Your task to perform on an android device: turn notification dots on Image 0: 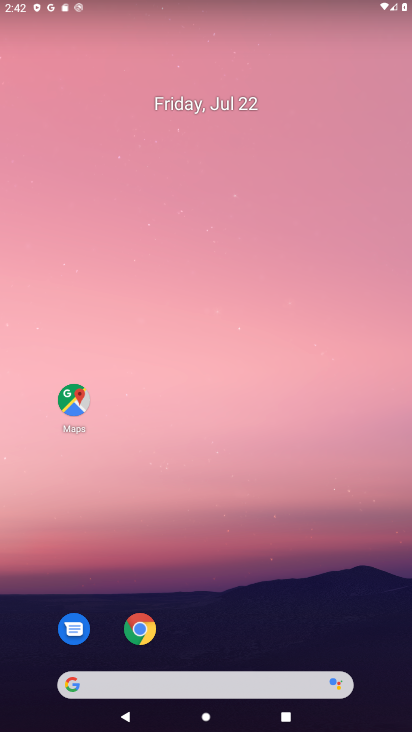
Step 0: drag from (263, 563) to (241, 144)
Your task to perform on an android device: turn notification dots on Image 1: 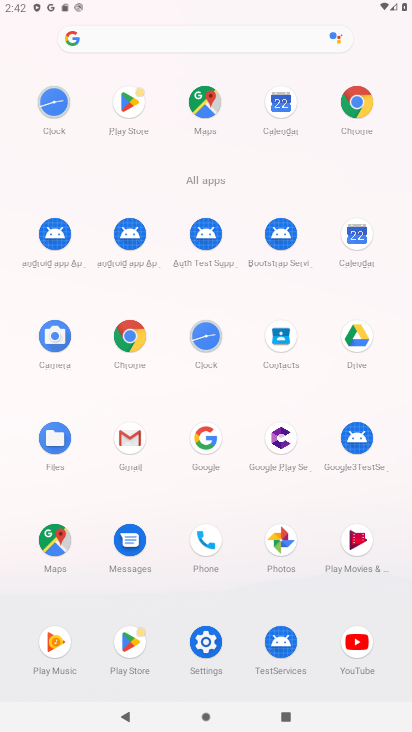
Step 1: click (199, 647)
Your task to perform on an android device: turn notification dots on Image 2: 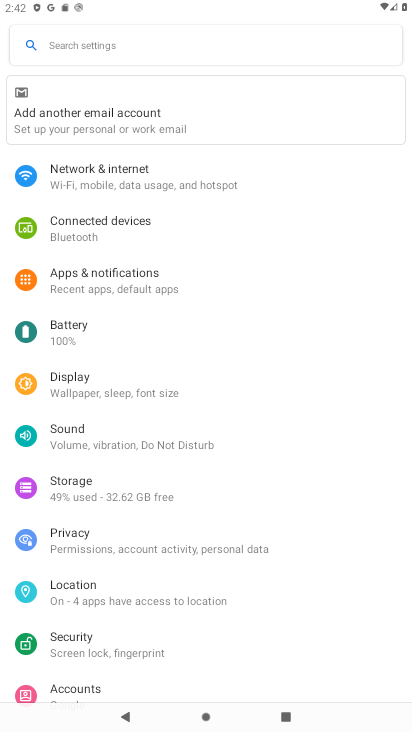
Step 2: click (111, 276)
Your task to perform on an android device: turn notification dots on Image 3: 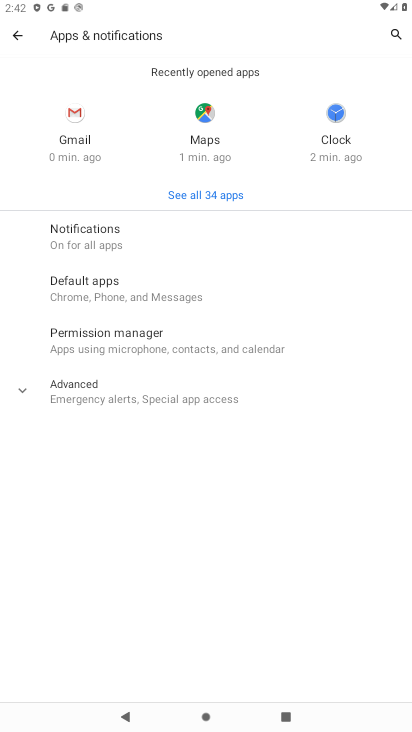
Step 3: click (92, 227)
Your task to perform on an android device: turn notification dots on Image 4: 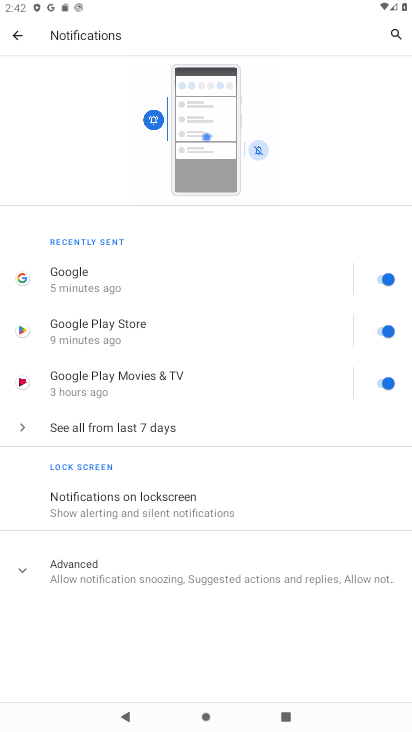
Step 4: click (67, 564)
Your task to perform on an android device: turn notification dots on Image 5: 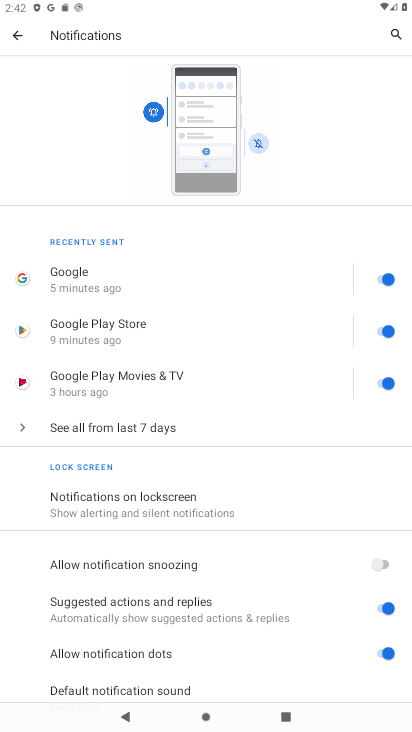
Step 5: task complete